Your task to perform on an android device: open app "Microsoft Outlook" Image 0: 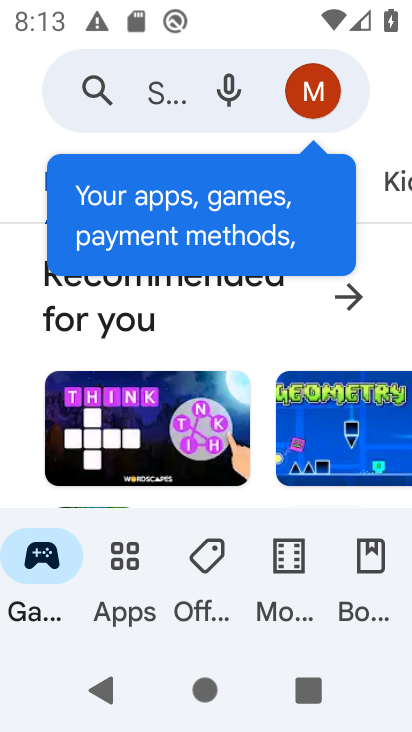
Step 0: click (174, 106)
Your task to perform on an android device: open app "Microsoft Outlook" Image 1: 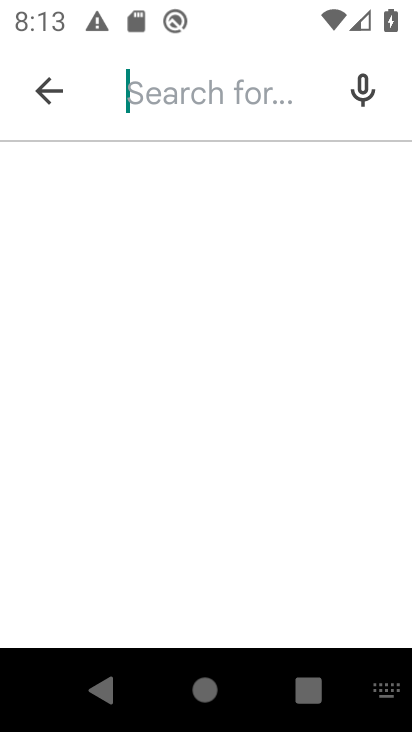
Step 1: type "Microsoft Outlook"
Your task to perform on an android device: open app "Microsoft Outlook" Image 2: 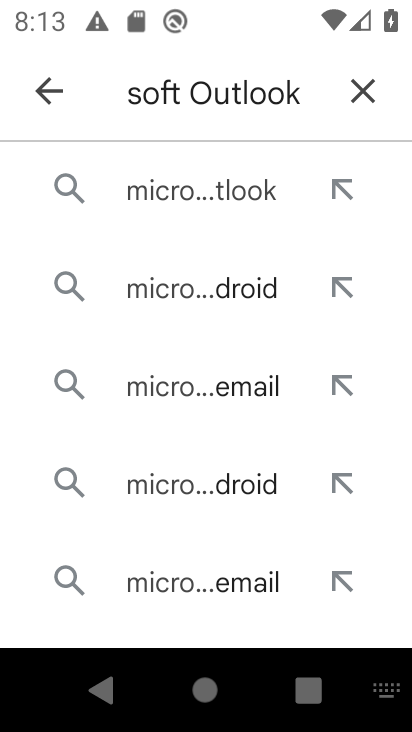
Step 2: click (242, 183)
Your task to perform on an android device: open app "Microsoft Outlook" Image 3: 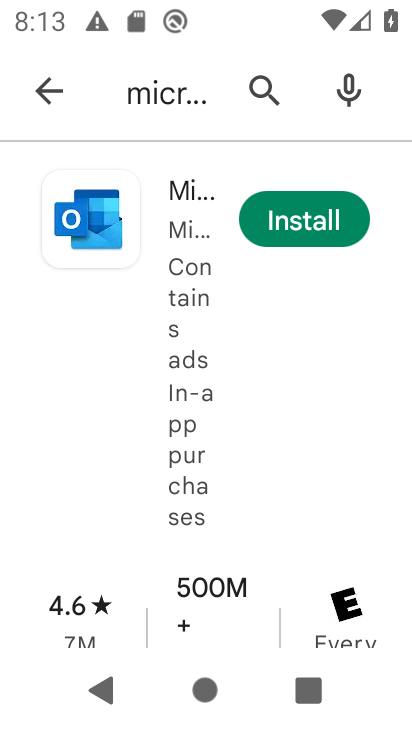
Step 3: click (292, 232)
Your task to perform on an android device: open app "Microsoft Outlook" Image 4: 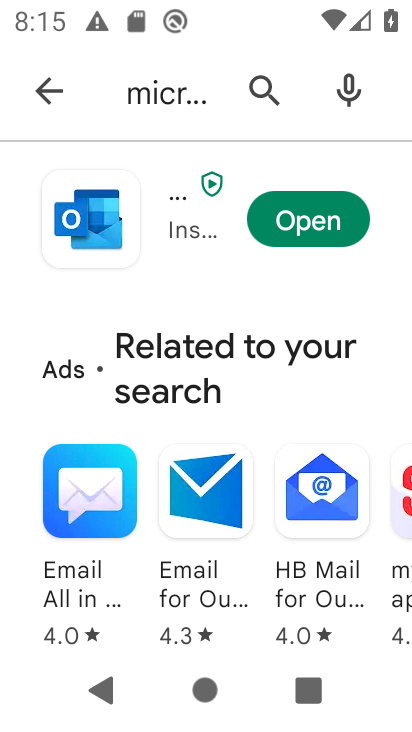
Step 4: click (281, 223)
Your task to perform on an android device: open app "Microsoft Outlook" Image 5: 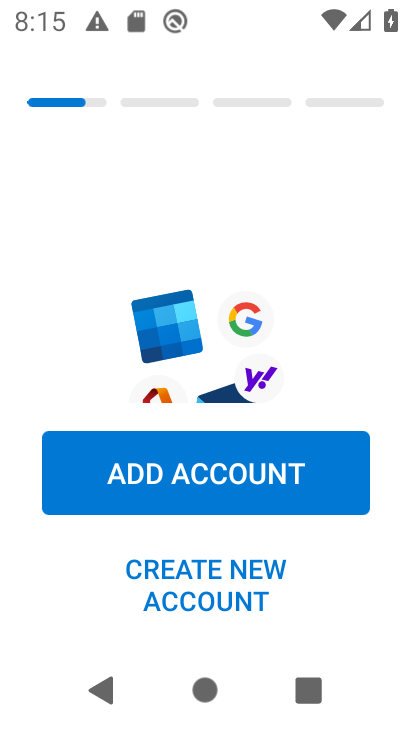
Step 5: task complete